Your task to perform on an android device: Search for "logitech g pro" on newegg.com, select the first entry, add it to the cart, then select checkout. Image 0: 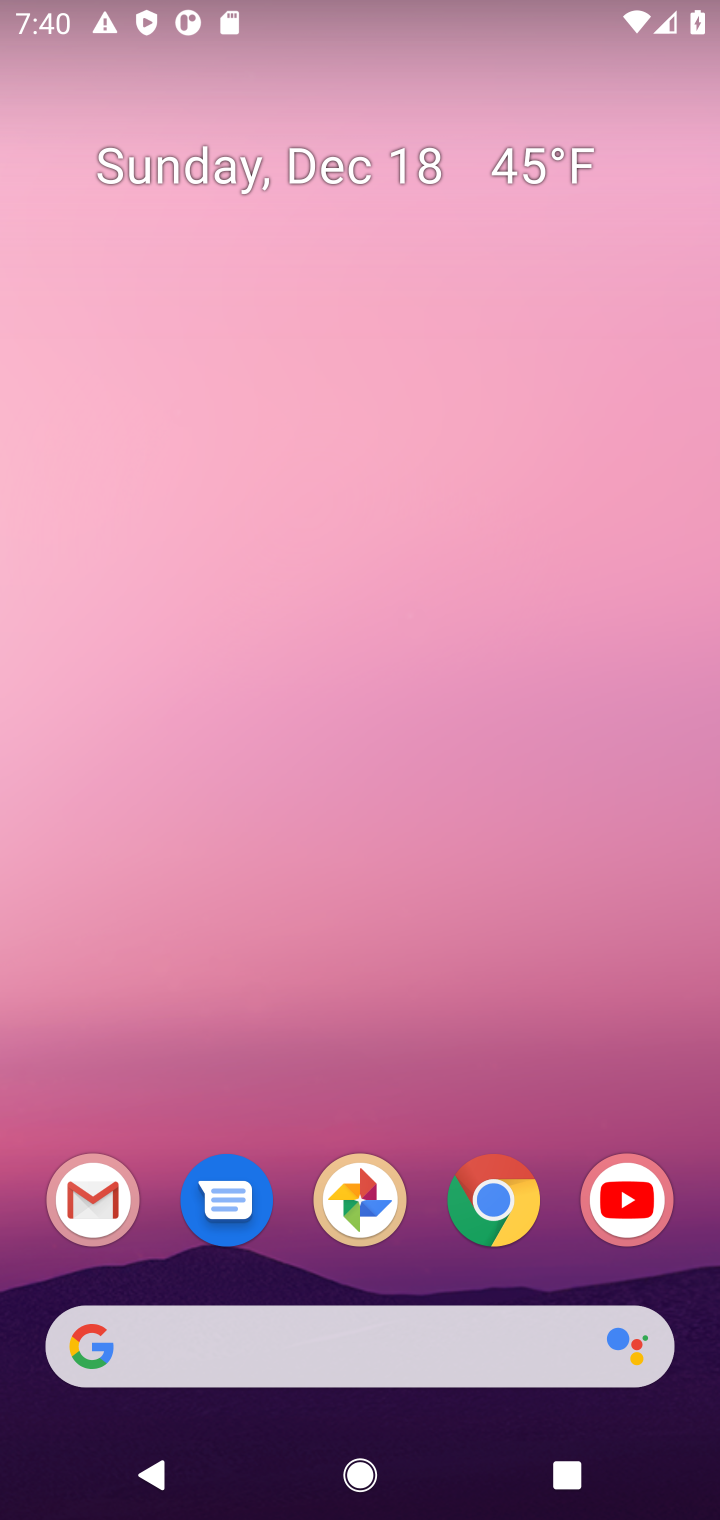
Step 0: click (501, 1198)
Your task to perform on an android device: Search for "logitech g pro" on newegg.com, select the first entry, add it to the cart, then select checkout. Image 1: 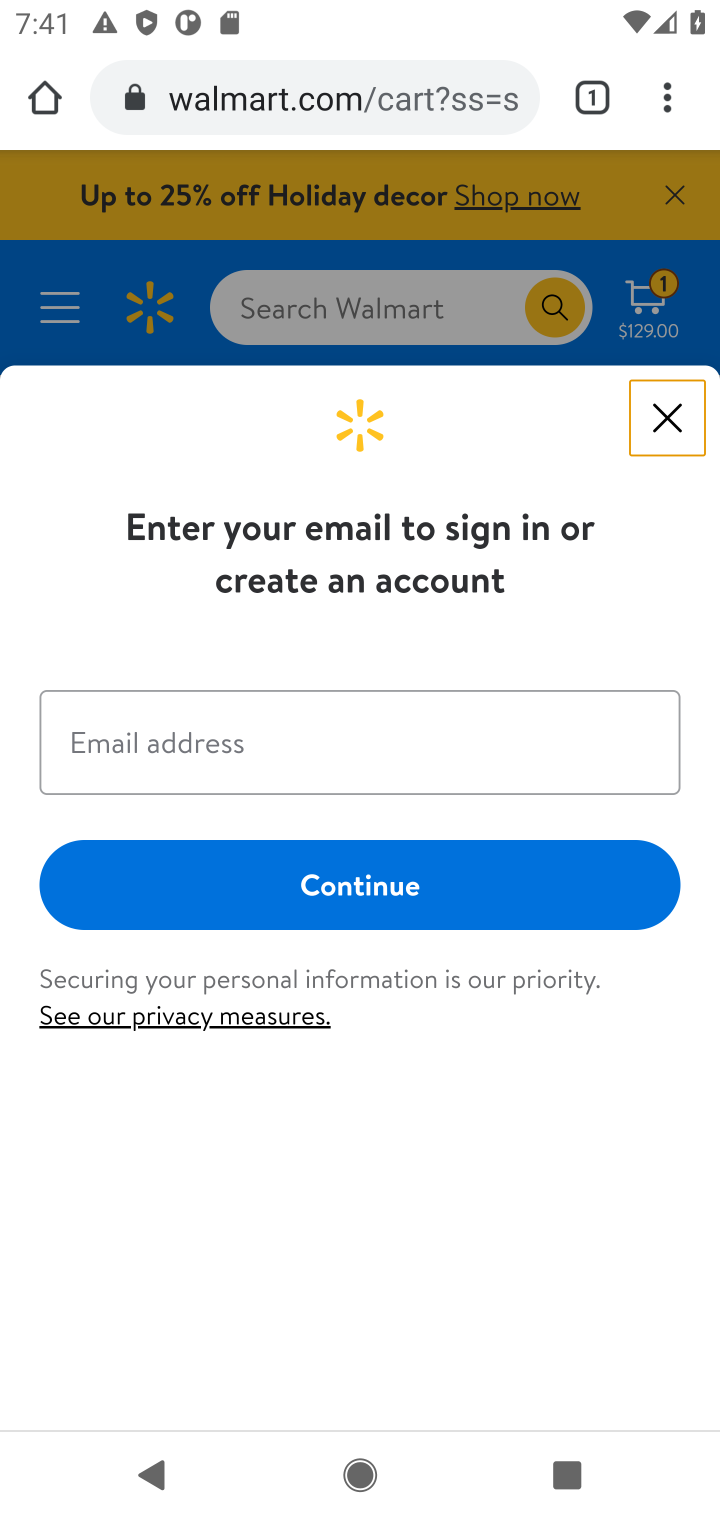
Step 1: click (293, 106)
Your task to perform on an android device: Search for "logitech g pro" on newegg.com, select the first entry, add it to the cart, then select checkout. Image 2: 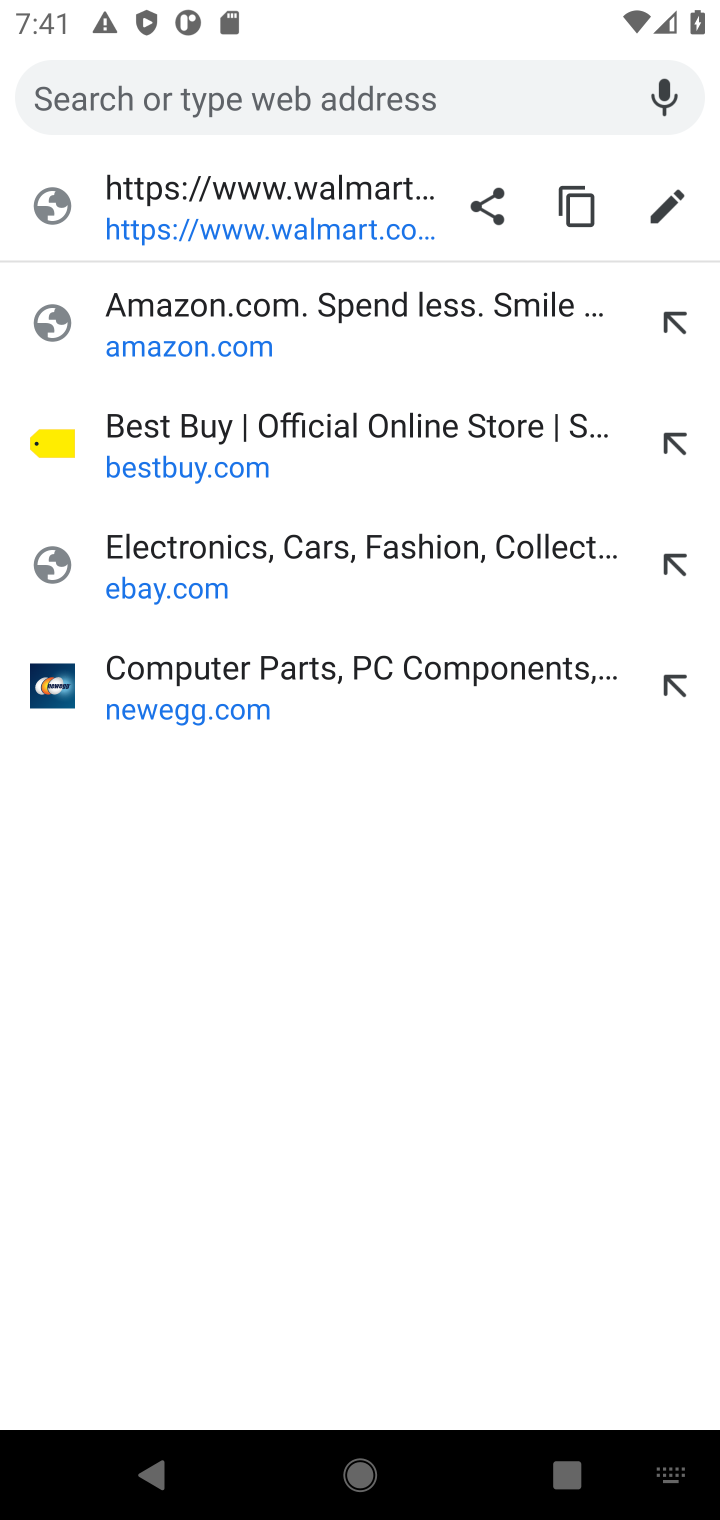
Step 2: click (159, 687)
Your task to perform on an android device: Search for "logitech g pro" on newegg.com, select the first entry, add it to the cart, then select checkout. Image 3: 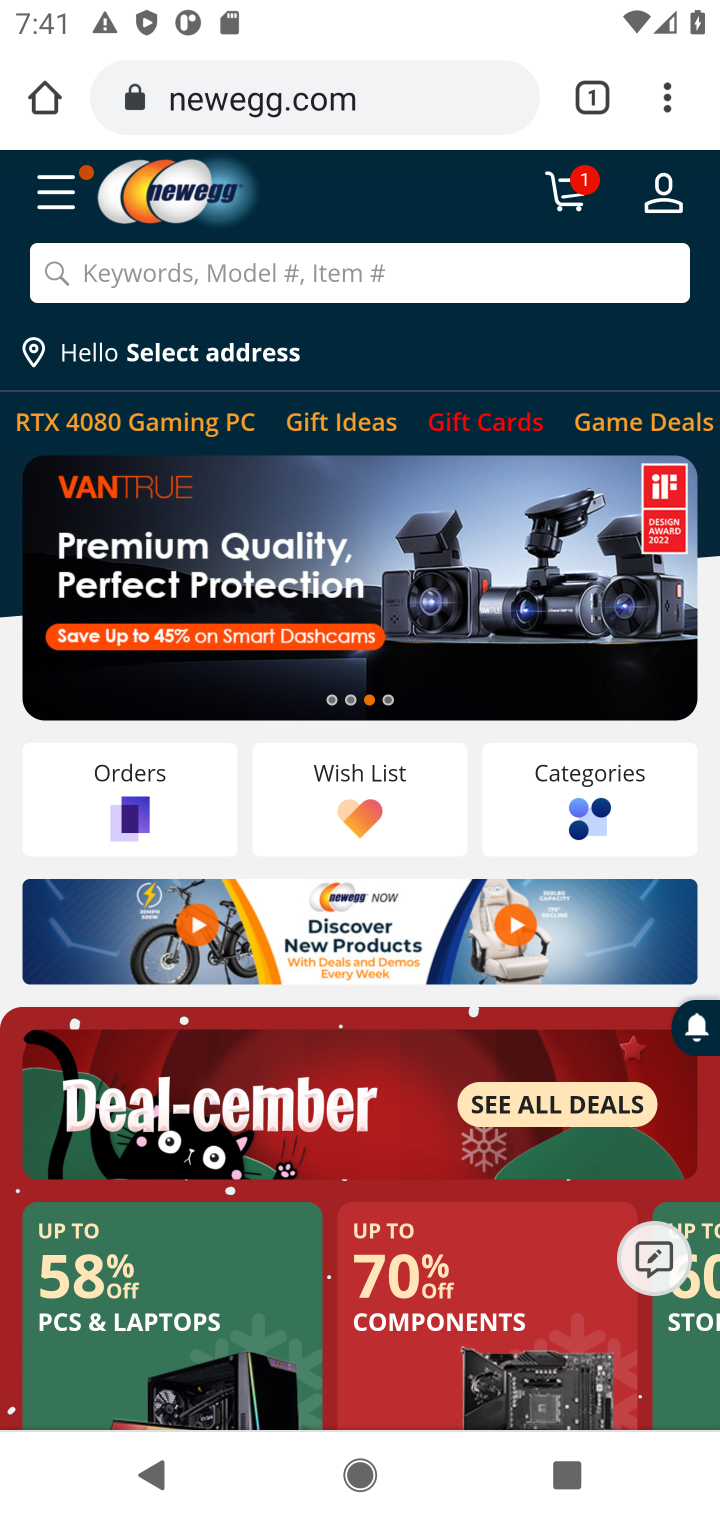
Step 3: click (194, 272)
Your task to perform on an android device: Search for "logitech g pro" on newegg.com, select the first entry, add it to the cart, then select checkout. Image 4: 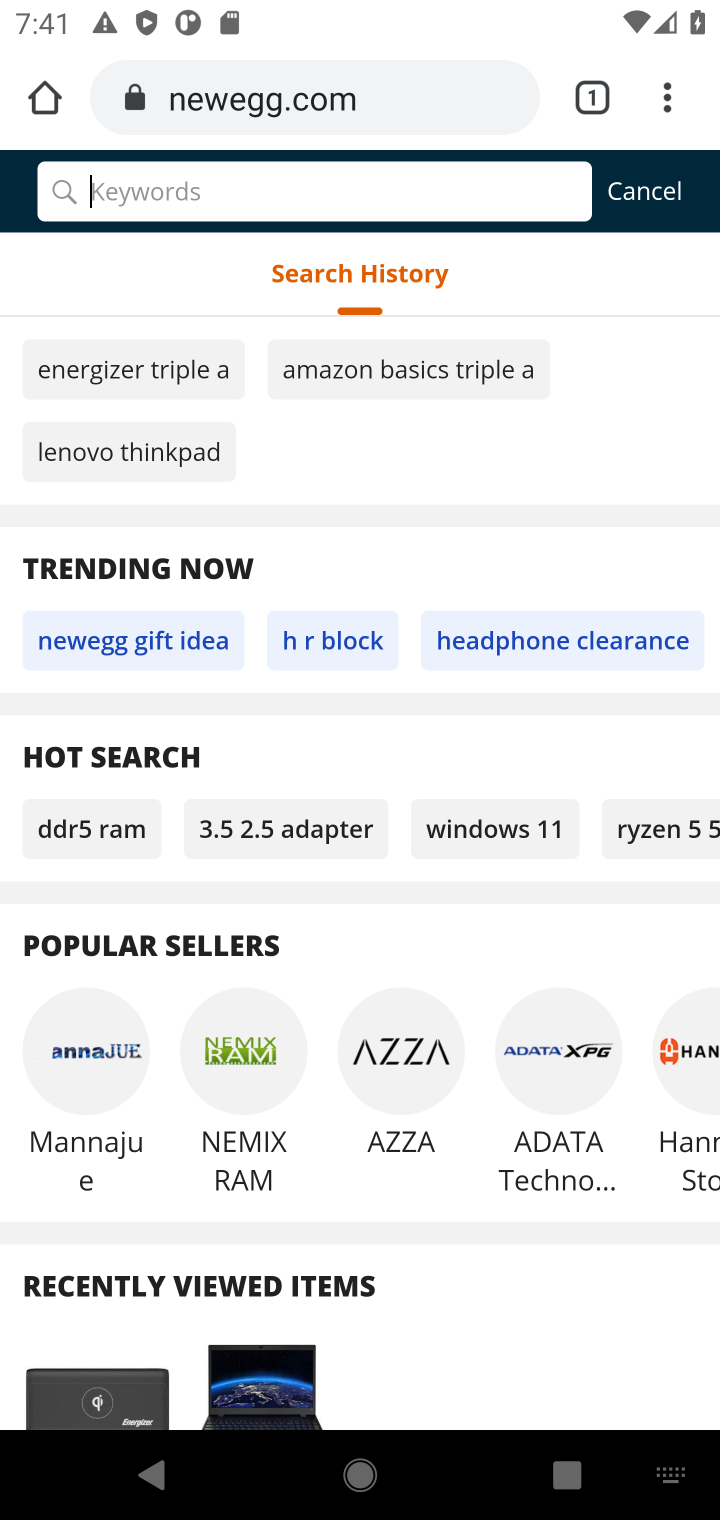
Step 4: type "logitech g pro"
Your task to perform on an android device: Search for "logitech g pro" on newegg.com, select the first entry, add it to the cart, then select checkout. Image 5: 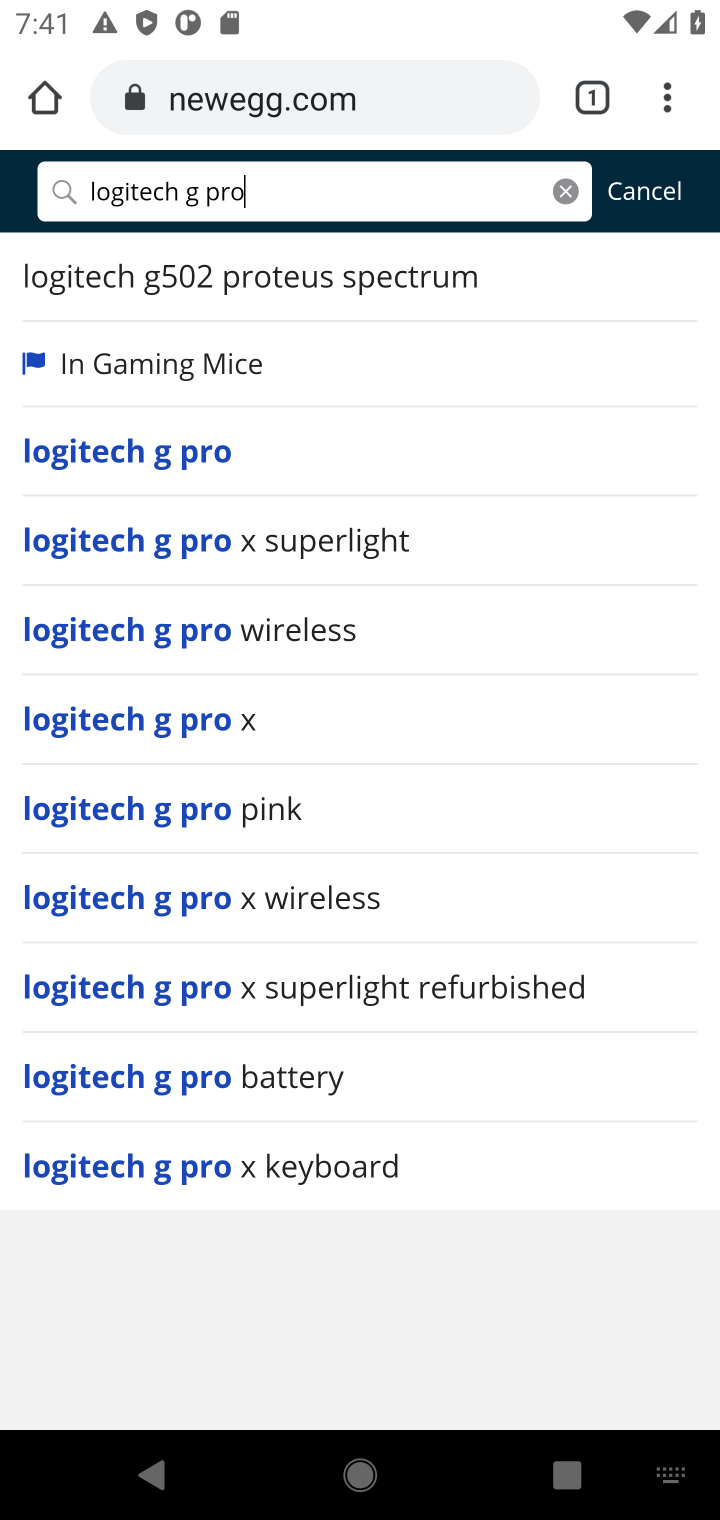
Step 5: click (137, 468)
Your task to perform on an android device: Search for "logitech g pro" on newegg.com, select the first entry, add it to the cart, then select checkout. Image 6: 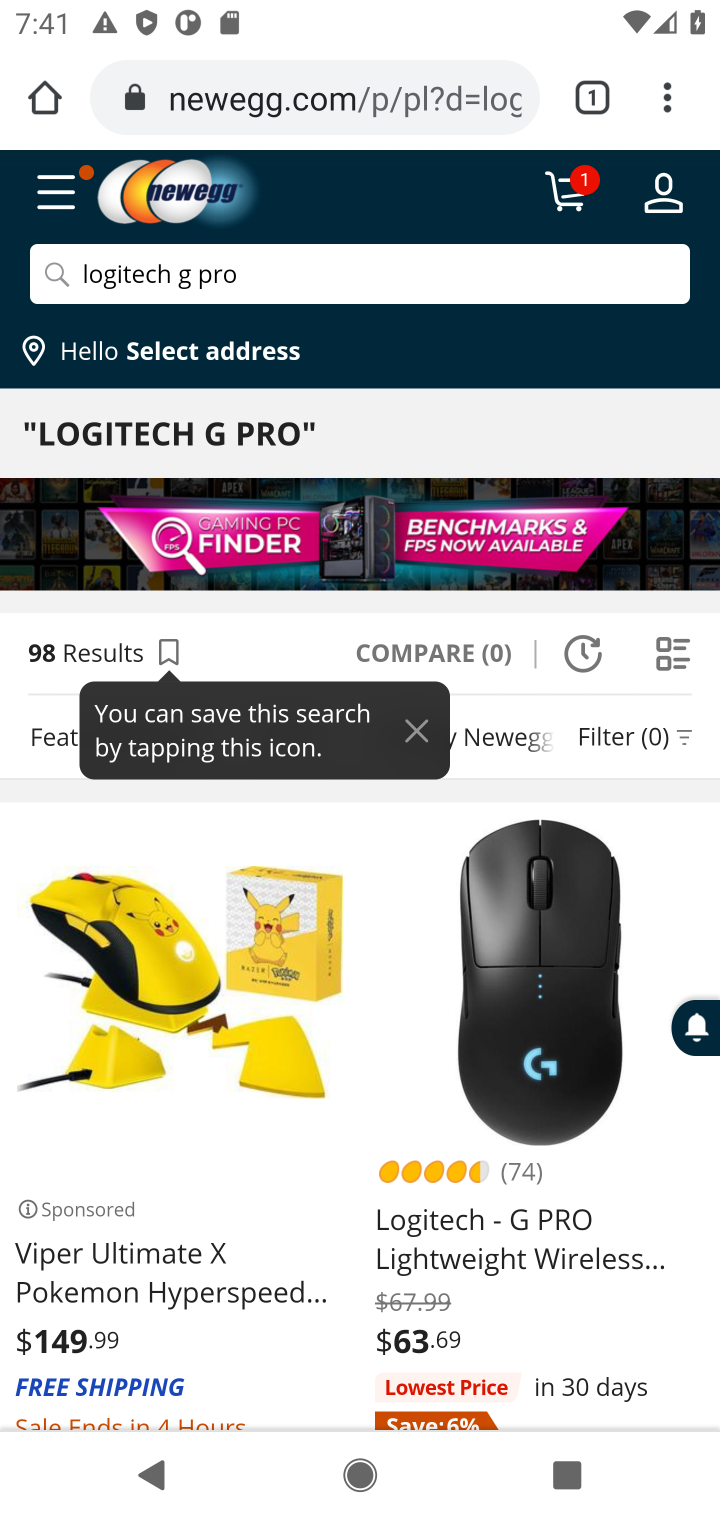
Step 6: task complete